Your task to perform on an android device: install app "Booking.com: Hotels and more" Image 0: 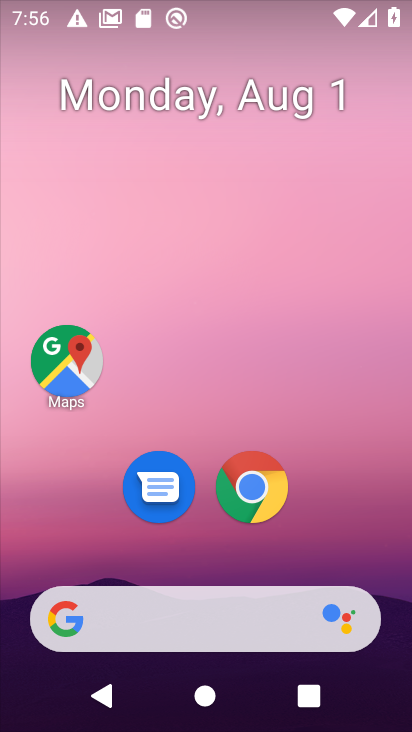
Step 0: press home button
Your task to perform on an android device: install app "Booking.com: Hotels and more" Image 1: 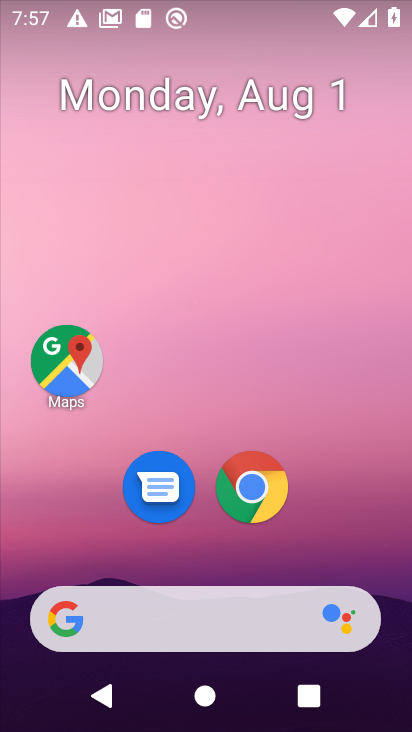
Step 1: drag from (345, 544) to (315, 47)
Your task to perform on an android device: install app "Booking.com: Hotels and more" Image 2: 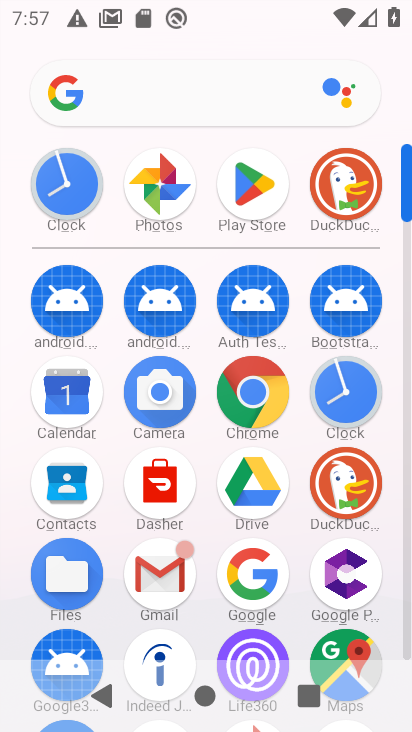
Step 2: click (270, 187)
Your task to perform on an android device: install app "Booking.com: Hotels and more" Image 3: 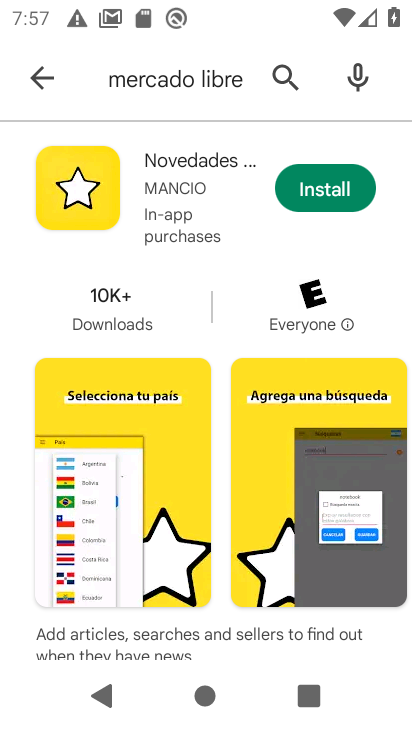
Step 3: click (283, 74)
Your task to perform on an android device: install app "Booking.com: Hotels and more" Image 4: 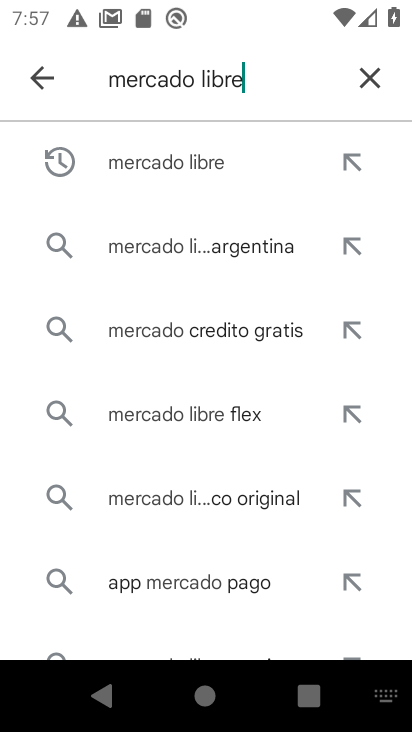
Step 4: click (370, 79)
Your task to perform on an android device: install app "Booking.com: Hotels and more" Image 5: 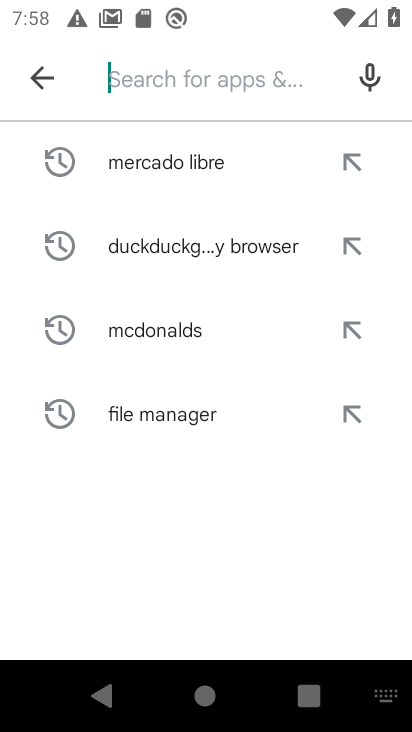
Step 5: type "Booking.com: Hotels and more"
Your task to perform on an android device: install app "Booking.com: Hotels and more" Image 6: 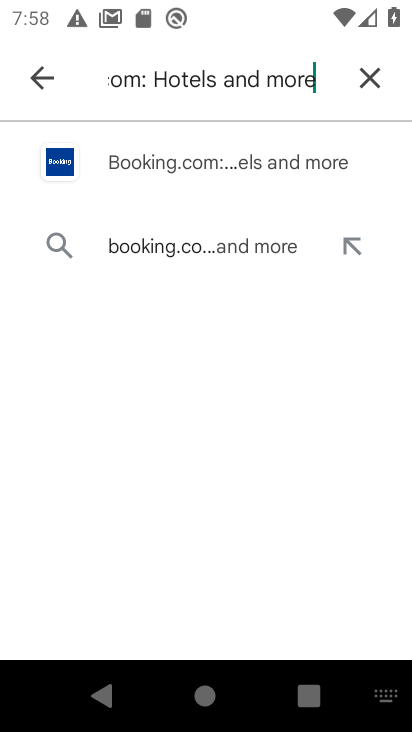
Step 6: click (258, 156)
Your task to perform on an android device: install app "Booking.com: Hotels and more" Image 7: 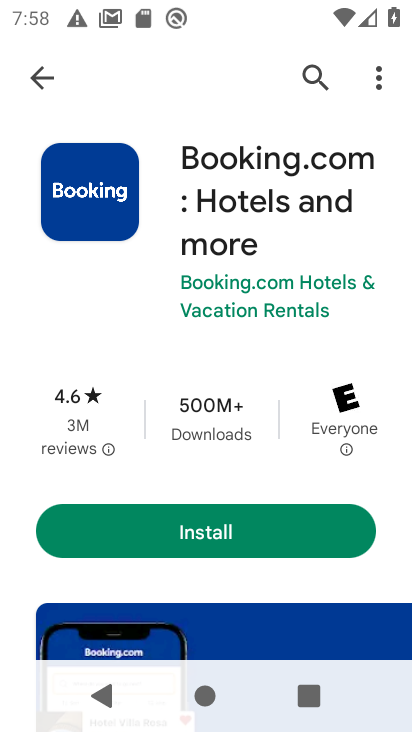
Step 7: click (325, 527)
Your task to perform on an android device: install app "Booking.com: Hotels and more" Image 8: 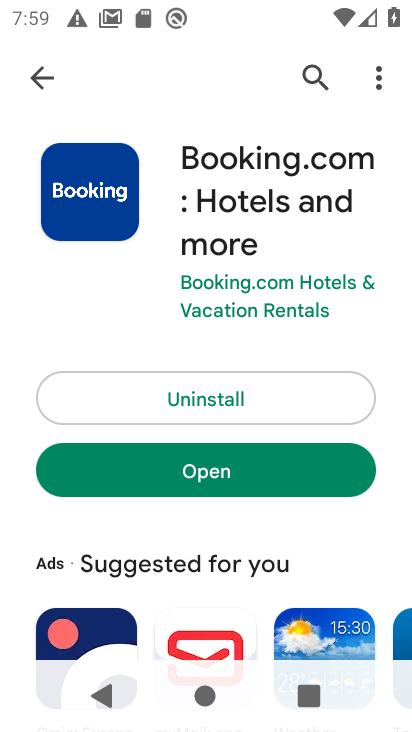
Step 8: task complete